Your task to perform on an android device: delete browsing data in the chrome app Image 0: 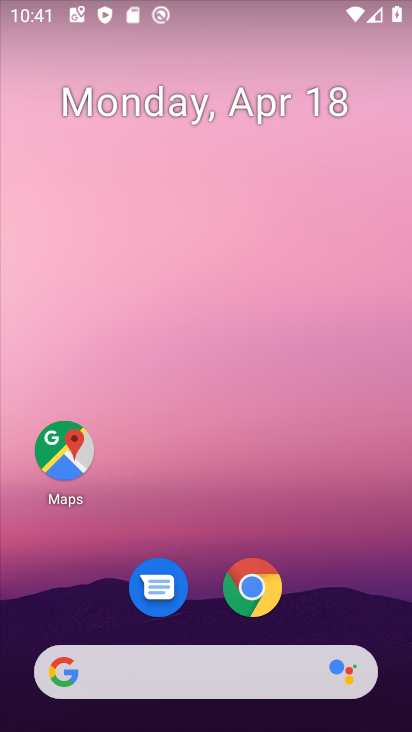
Step 0: click (278, 594)
Your task to perform on an android device: delete browsing data in the chrome app Image 1: 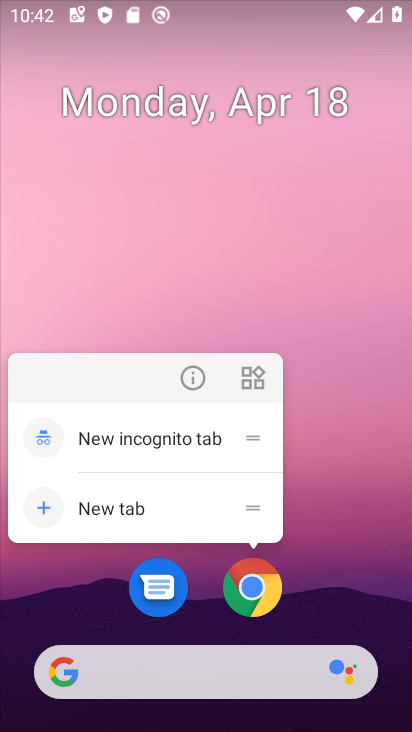
Step 1: drag from (329, 574) to (331, 118)
Your task to perform on an android device: delete browsing data in the chrome app Image 2: 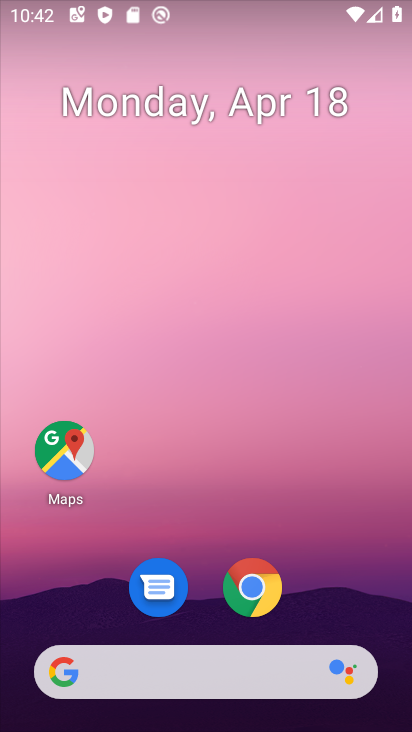
Step 2: click (272, 587)
Your task to perform on an android device: delete browsing data in the chrome app Image 3: 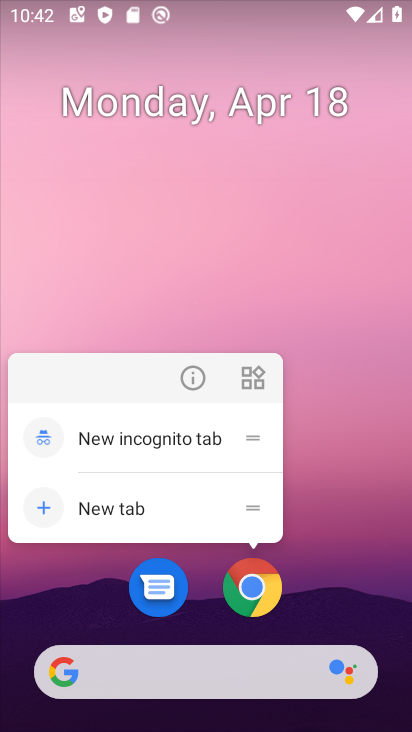
Step 3: click (273, 595)
Your task to perform on an android device: delete browsing data in the chrome app Image 4: 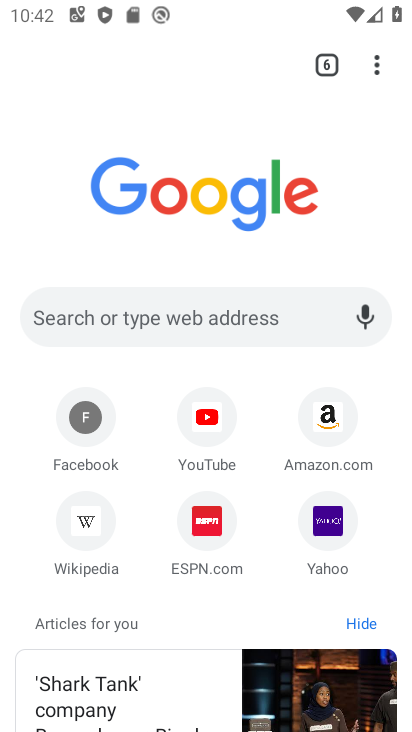
Step 4: click (379, 68)
Your task to perform on an android device: delete browsing data in the chrome app Image 5: 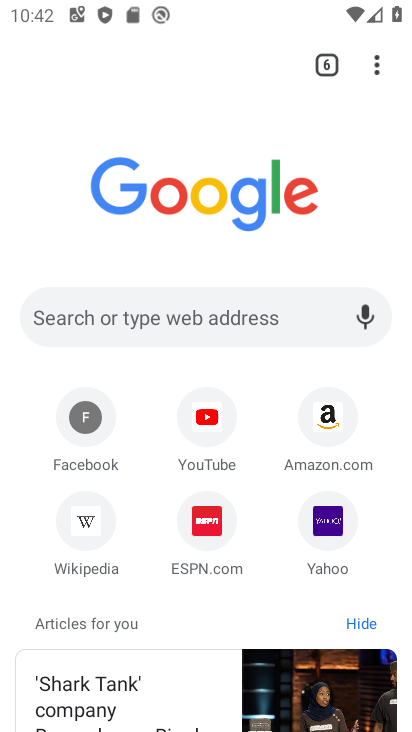
Step 5: click (380, 68)
Your task to perform on an android device: delete browsing data in the chrome app Image 6: 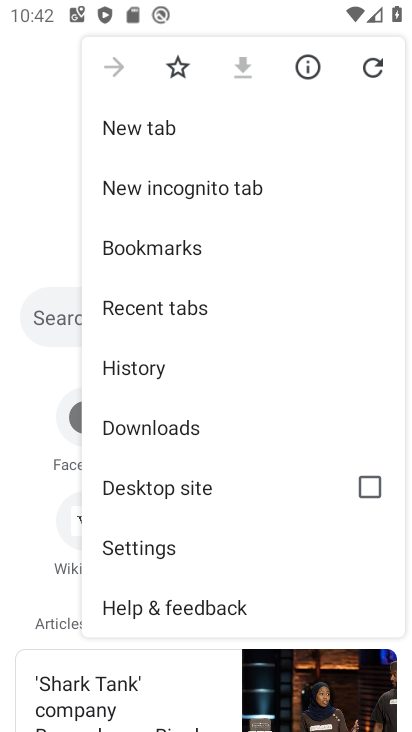
Step 6: click (165, 362)
Your task to perform on an android device: delete browsing data in the chrome app Image 7: 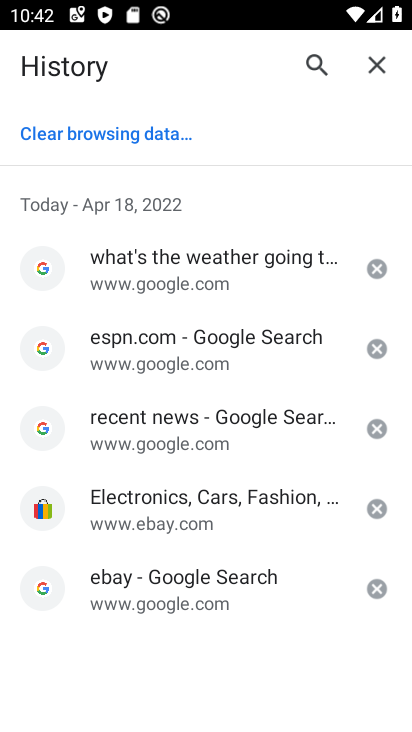
Step 7: click (164, 136)
Your task to perform on an android device: delete browsing data in the chrome app Image 8: 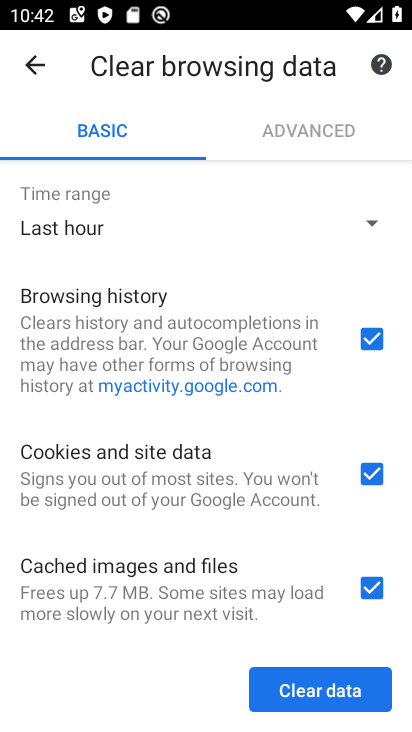
Step 8: click (298, 693)
Your task to perform on an android device: delete browsing data in the chrome app Image 9: 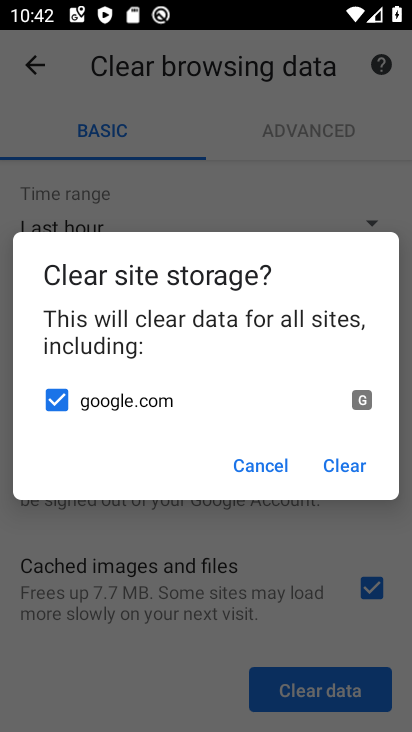
Step 9: click (350, 463)
Your task to perform on an android device: delete browsing data in the chrome app Image 10: 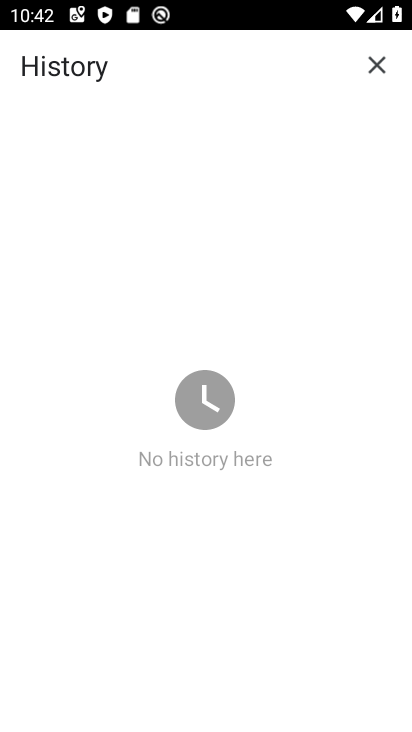
Step 10: task complete